Your task to perform on an android device: Open Yahoo.com Image 0: 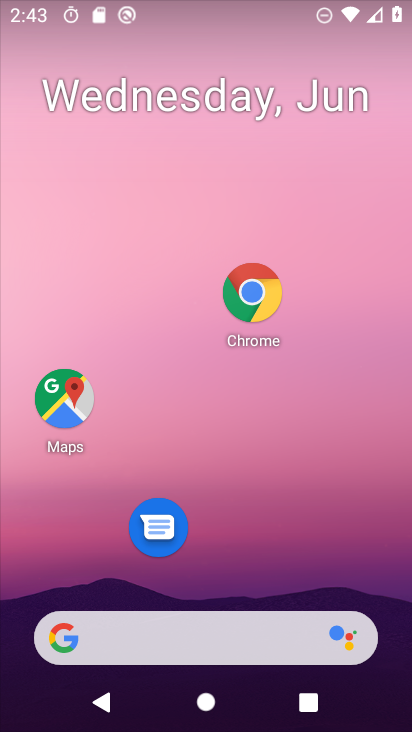
Step 0: drag from (257, 448) to (281, 277)
Your task to perform on an android device: Open Yahoo.com Image 1: 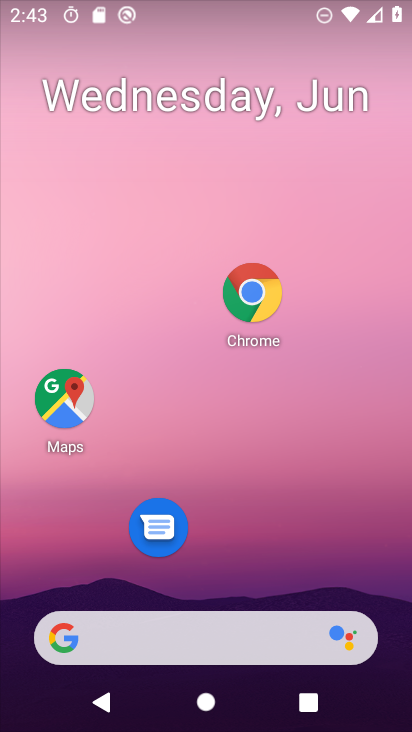
Step 1: drag from (248, 480) to (256, 102)
Your task to perform on an android device: Open Yahoo.com Image 2: 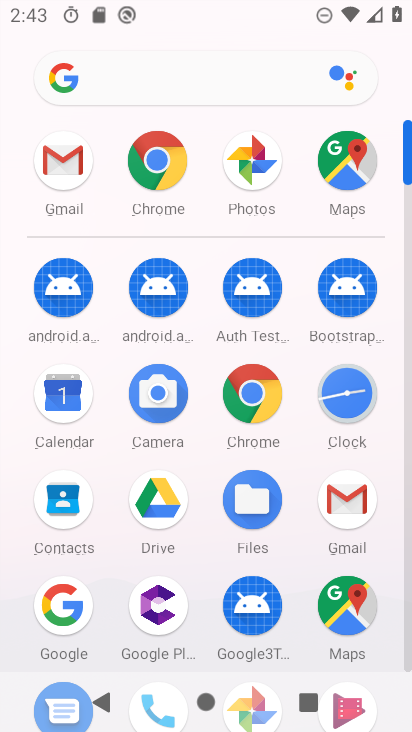
Step 2: click (167, 177)
Your task to perform on an android device: Open Yahoo.com Image 3: 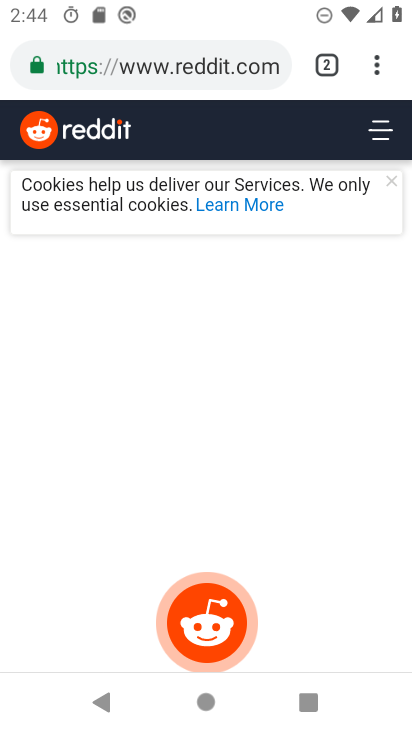
Step 3: click (230, 69)
Your task to perform on an android device: Open Yahoo.com Image 4: 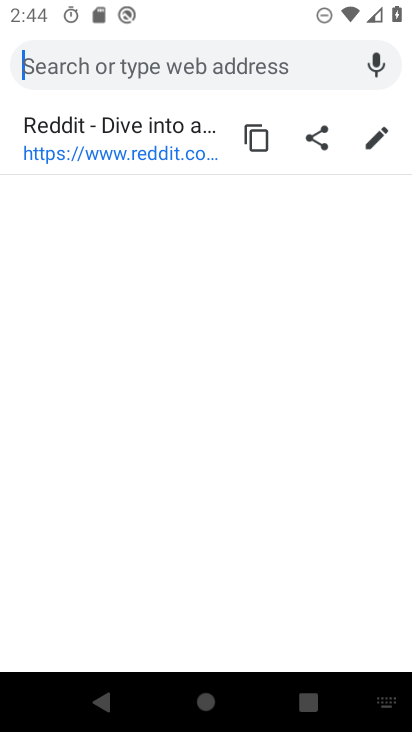
Step 4: type "yahoo"
Your task to perform on an android device: Open Yahoo.com Image 5: 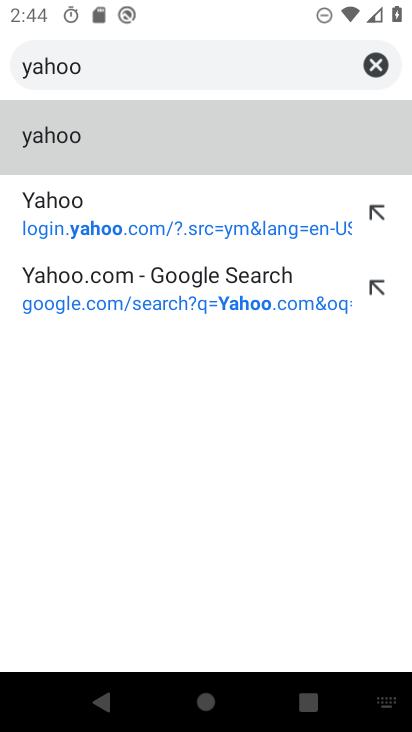
Step 5: click (165, 223)
Your task to perform on an android device: Open Yahoo.com Image 6: 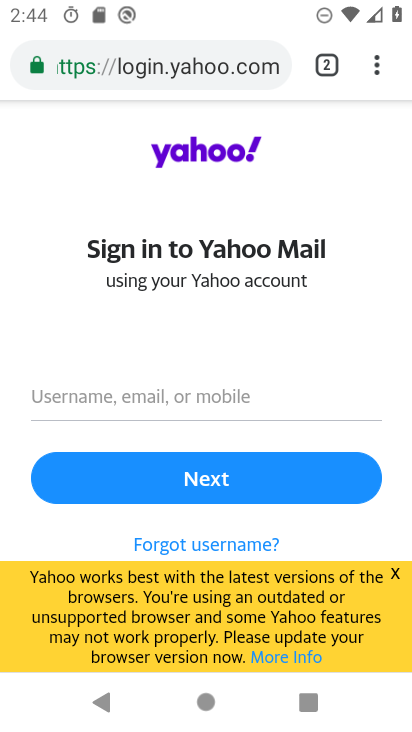
Step 6: task complete